Your task to perform on an android device: find photos in the google photos app Image 0: 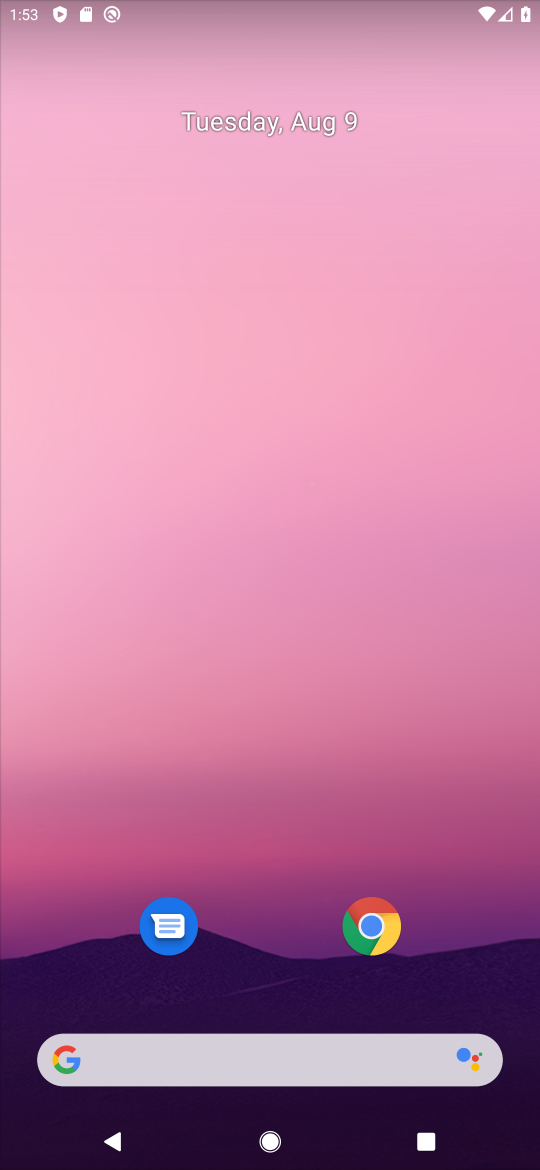
Step 0: press home button
Your task to perform on an android device: find photos in the google photos app Image 1: 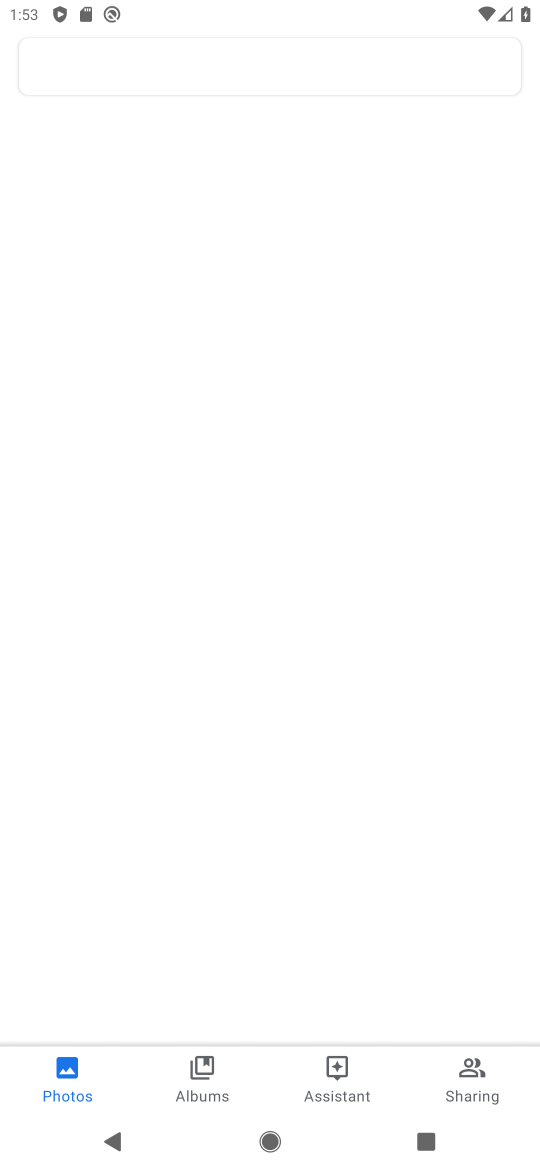
Step 1: press home button
Your task to perform on an android device: find photos in the google photos app Image 2: 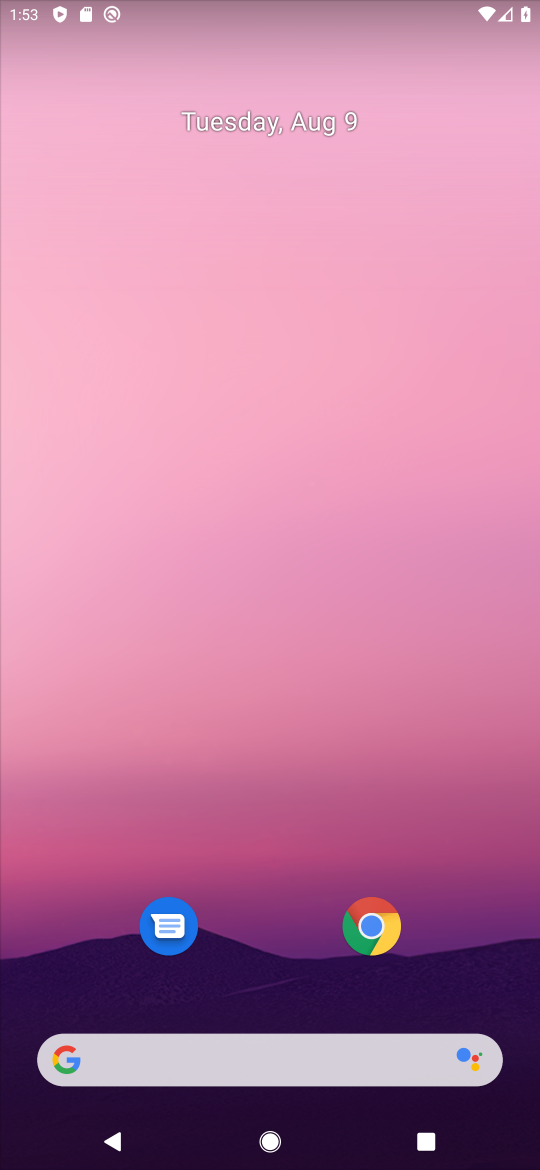
Step 2: drag from (276, 936) to (255, 342)
Your task to perform on an android device: find photos in the google photos app Image 3: 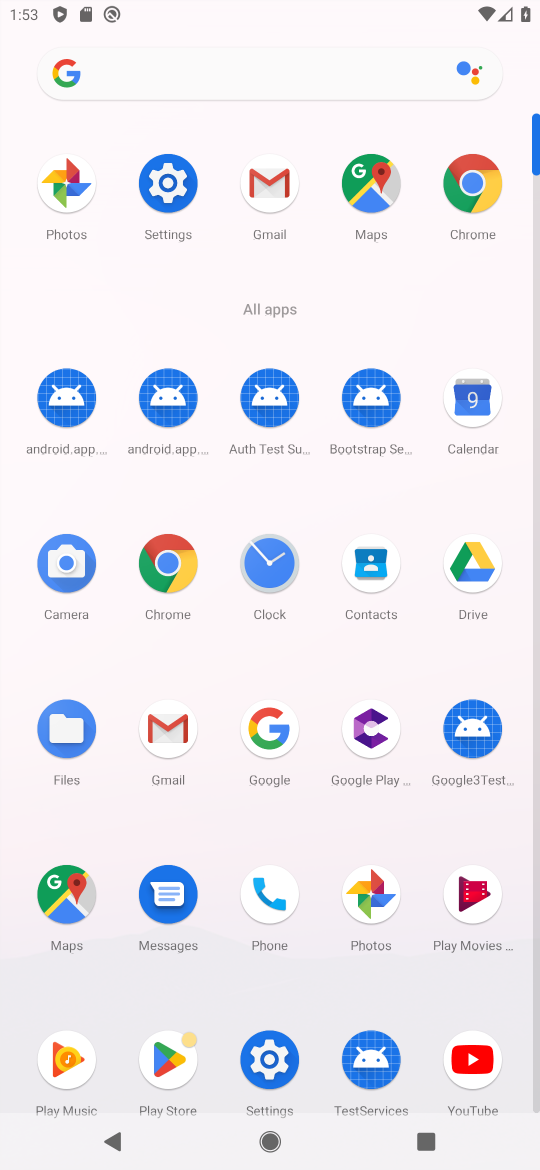
Step 3: click (363, 884)
Your task to perform on an android device: find photos in the google photos app Image 4: 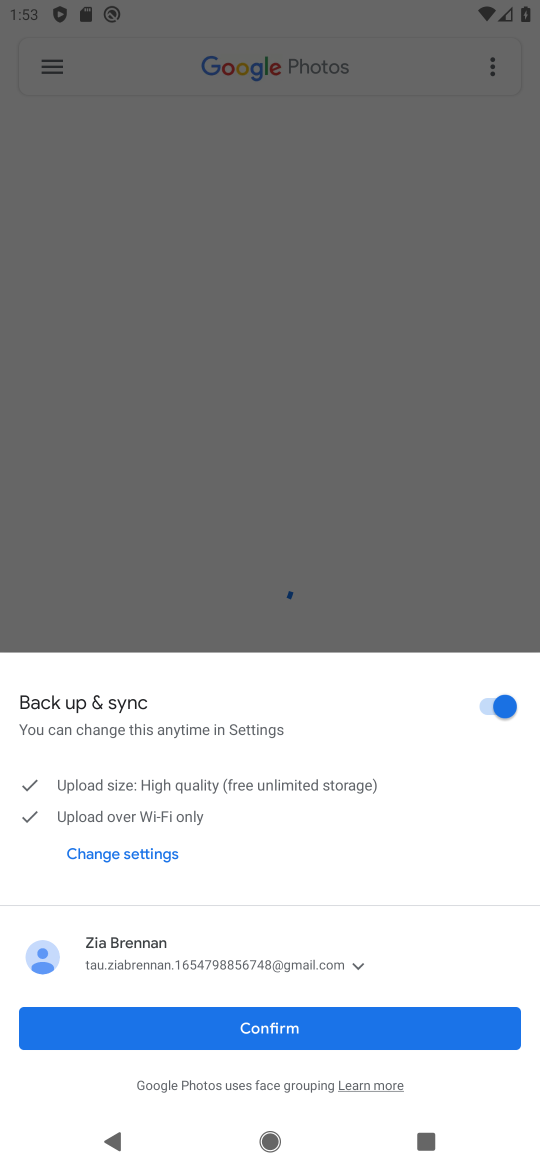
Step 4: click (232, 1014)
Your task to perform on an android device: find photos in the google photos app Image 5: 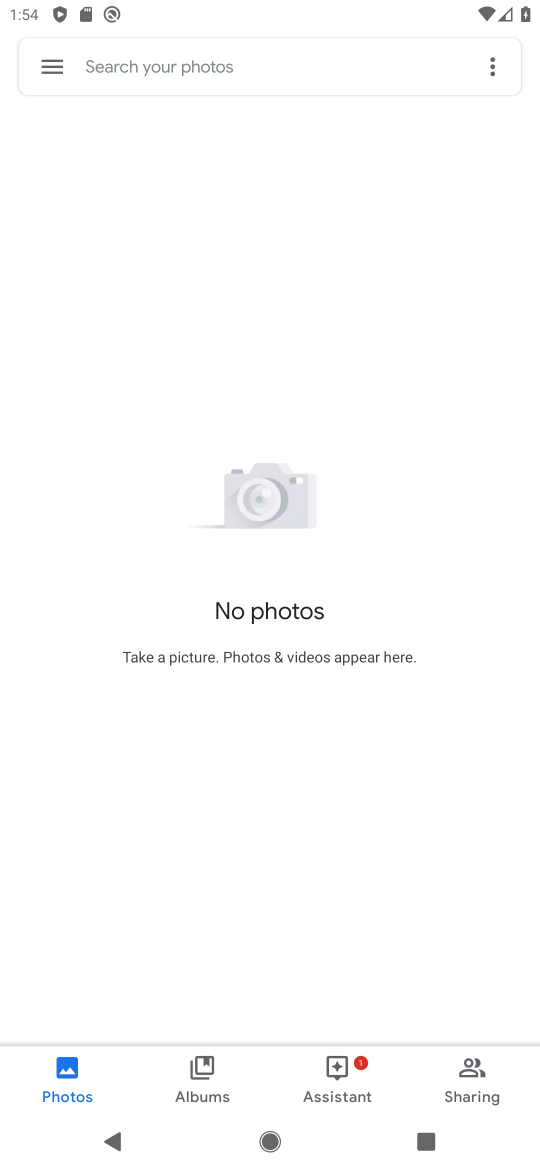
Step 5: task complete